Your task to perform on an android device: Open maps Image 0: 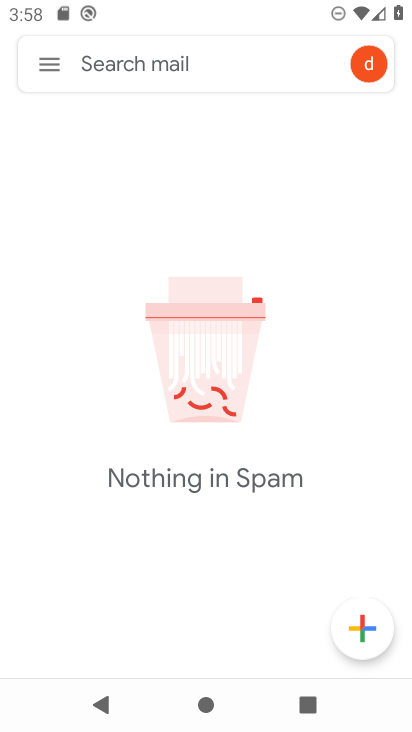
Step 0: press home button
Your task to perform on an android device: Open maps Image 1: 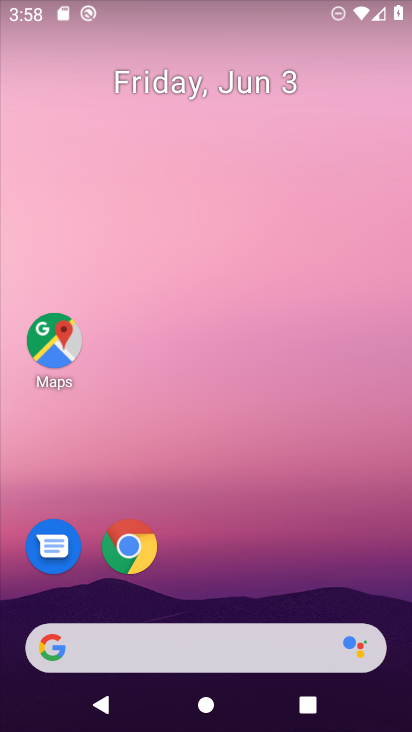
Step 1: click (54, 330)
Your task to perform on an android device: Open maps Image 2: 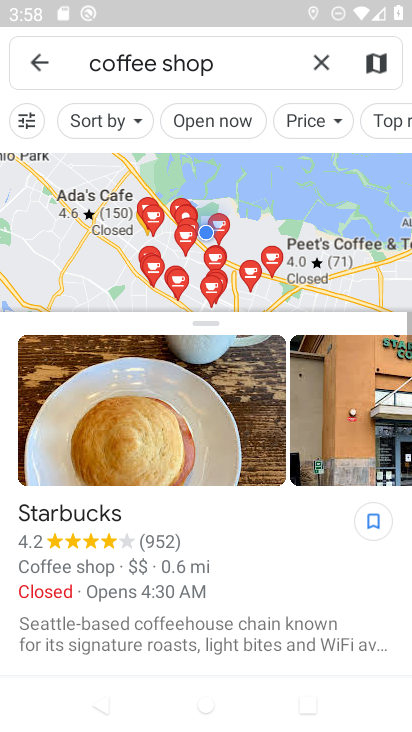
Step 2: click (316, 58)
Your task to perform on an android device: Open maps Image 3: 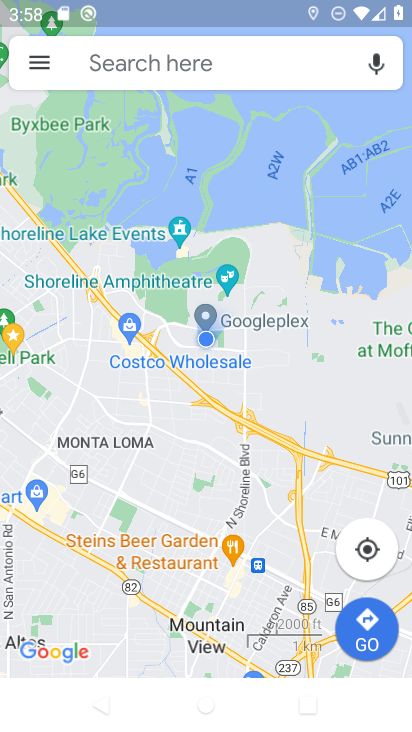
Step 3: task complete